Your task to perform on an android device: turn on bluetooth scan Image 0: 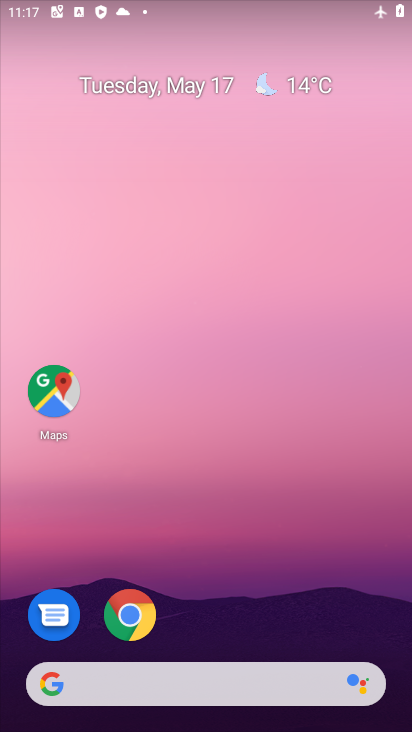
Step 0: drag from (394, 622) to (289, 37)
Your task to perform on an android device: turn on bluetooth scan Image 1: 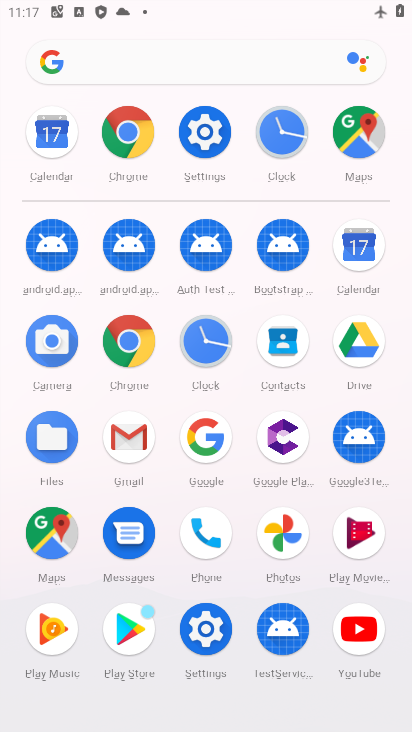
Step 1: click (208, 629)
Your task to perform on an android device: turn on bluetooth scan Image 2: 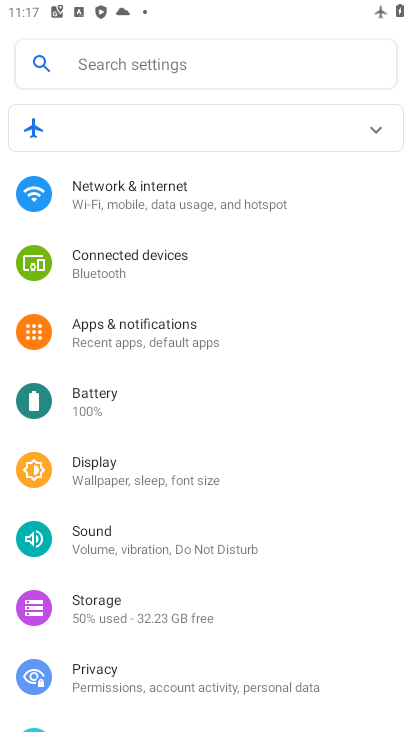
Step 2: drag from (294, 632) to (251, 293)
Your task to perform on an android device: turn on bluetooth scan Image 3: 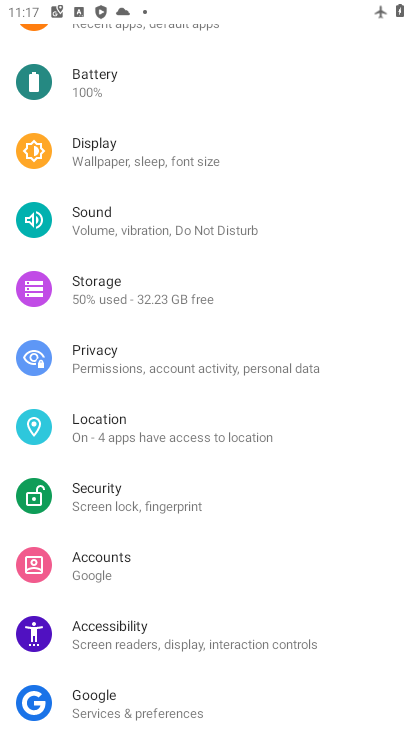
Step 3: click (128, 429)
Your task to perform on an android device: turn on bluetooth scan Image 4: 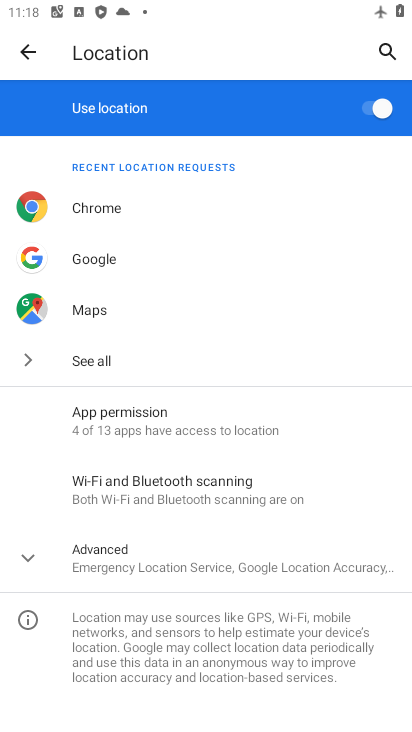
Step 4: click (130, 496)
Your task to perform on an android device: turn on bluetooth scan Image 5: 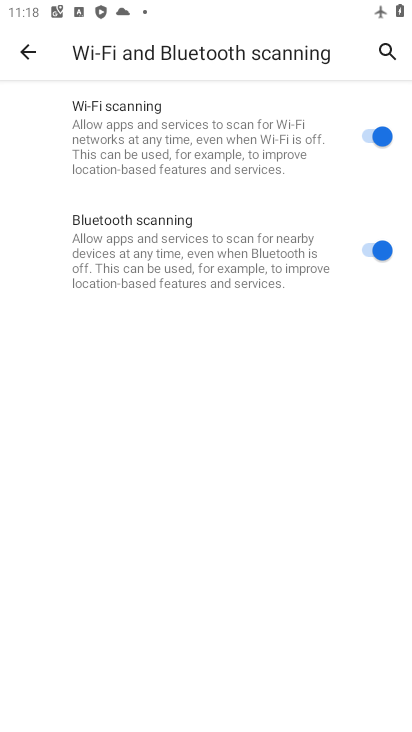
Step 5: task complete